Your task to perform on an android device: Open Chrome and go to the settings page Image 0: 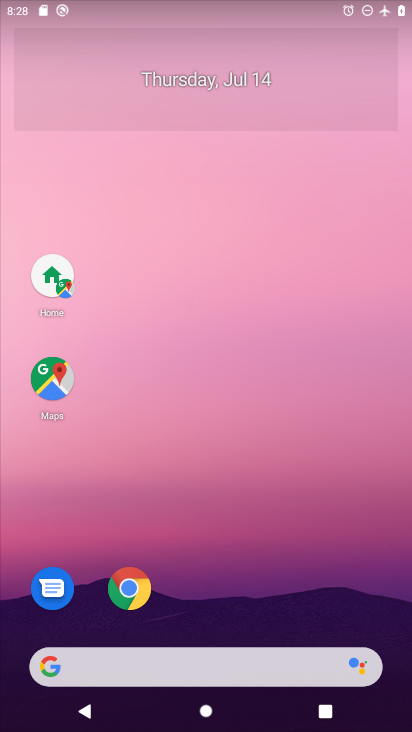
Step 0: click (45, 381)
Your task to perform on an android device: Open Chrome and go to the settings page Image 1: 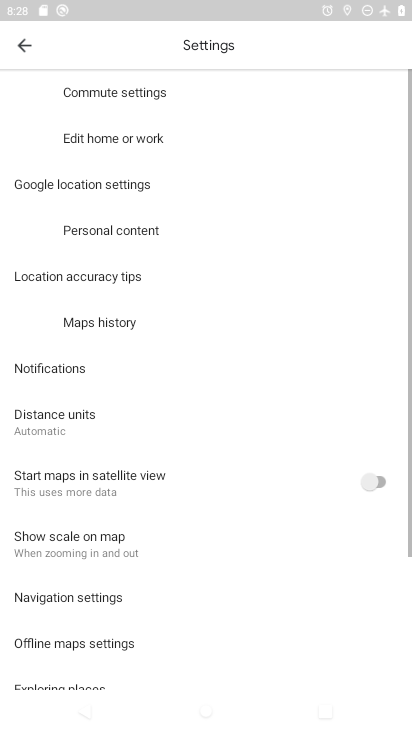
Step 1: press home button
Your task to perform on an android device: Open Chrome and go to the settings page Image 2: 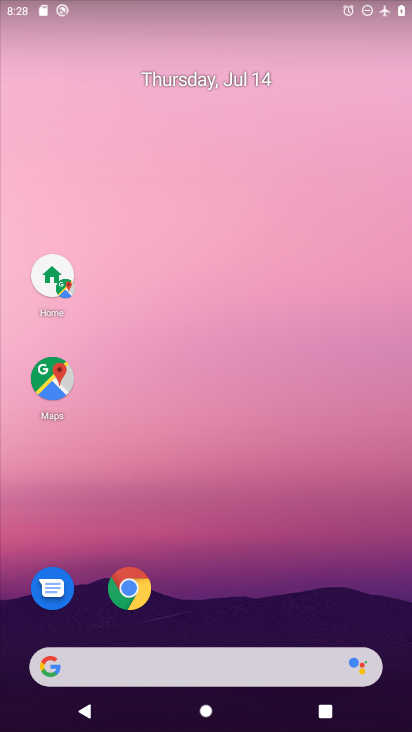
Step 2: click (119, 598)
Your task to perform on an android device: Open Chrome and go to the settings page Image 3: 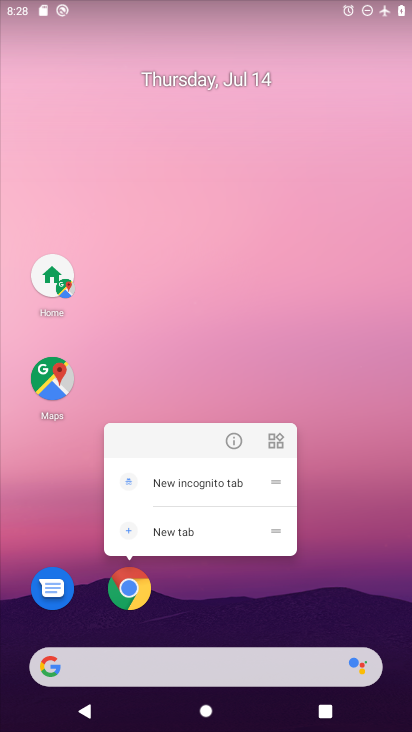
Step 3: click (146, 577)
Your task to perform on an android device: Open Chrome and go to the settings page Image 4: 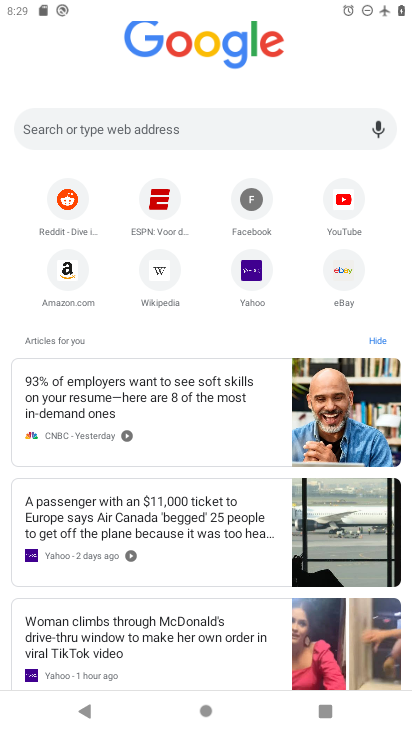
Step 4: task complete